Your task to perform on an android device: open chrome privacy settings Image 0: 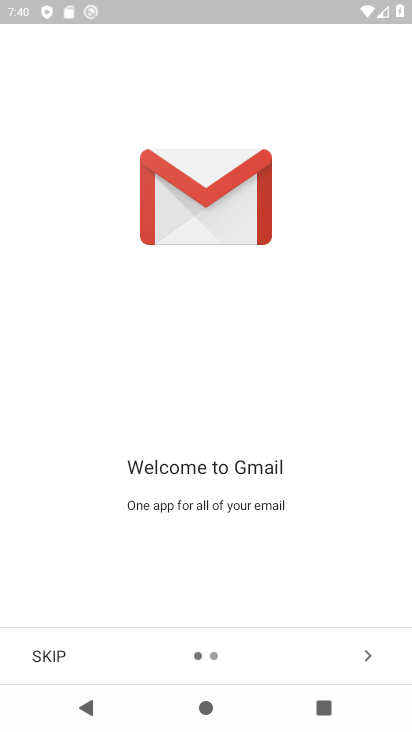
Step 0: press back button
Your task to perform on an android device: open chrome privacy settings Image 1: 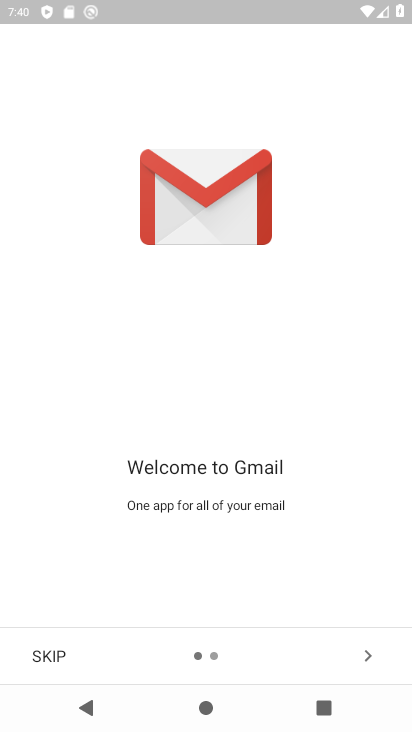
Step 1: press back button
Your task to perform on an android device: open chrome privacy settings Image 2: 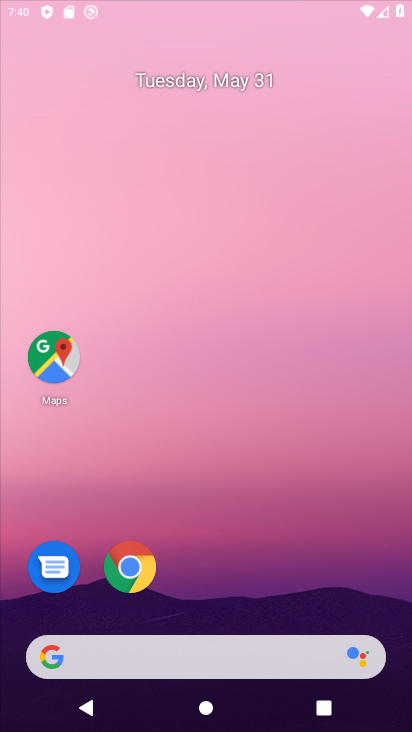
Step 2: press back button
Your task to perform on an android device: open chrome privacy settings Image 3: 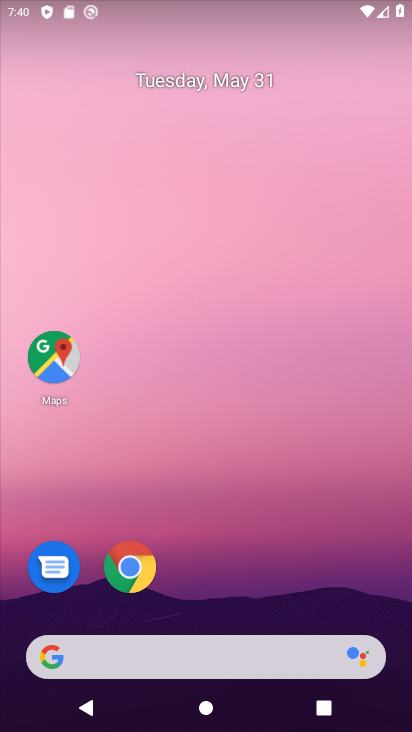
Step 3: press back button
Your task to perform on an android device: open chrome privacy settings Image 4: 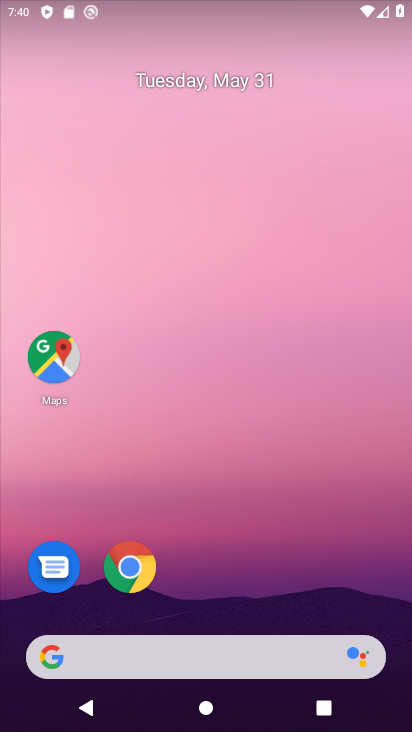
Step 4: press back button
Your task to perform on an android device: open chrome privacy settings Image 5: 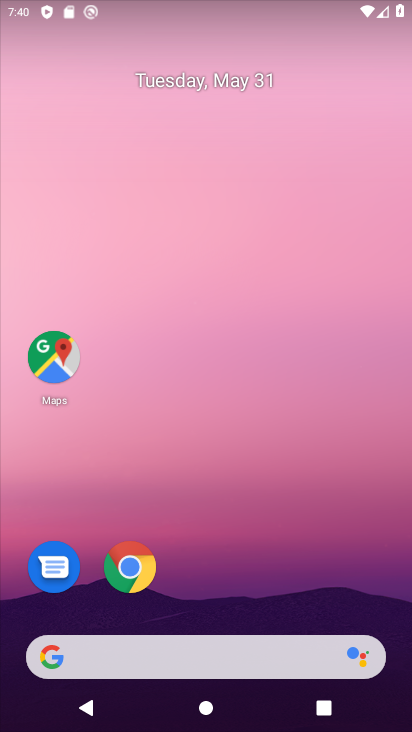
Step 5: drag from (282, 704) to (220, 100)
Your task to perform on an android device: open chrome privacy settings Image 6: 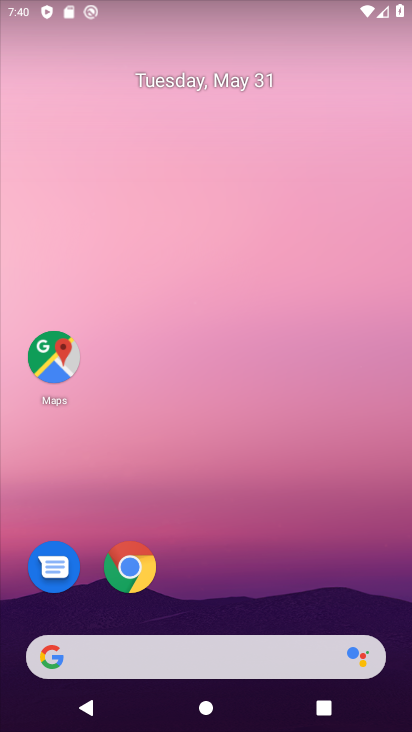
Step 6: drag from (245, 600) to (186, 153)
Your task to perform on an android device: open chrome privacy settings Image 7: 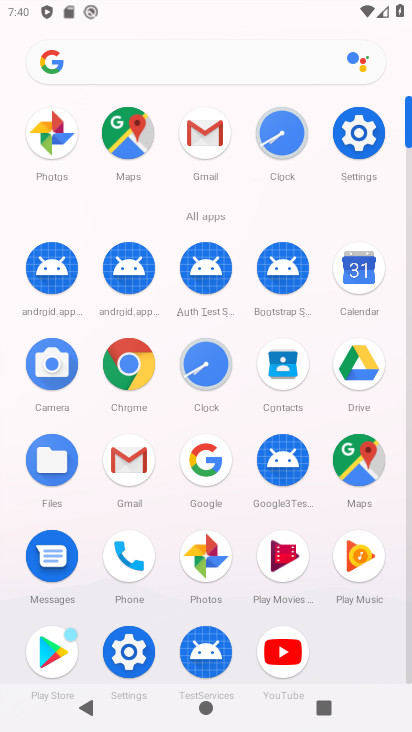
Step 7: click (120, 373)
Your task to perform on an android device: open chrome privacy settings Image 8: 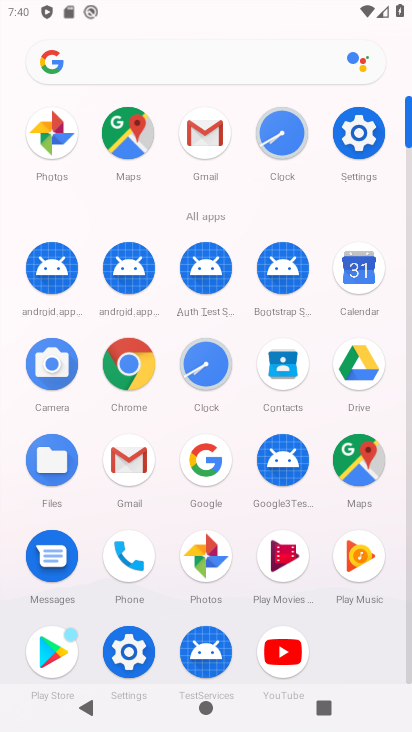
Step 8: click (125, 371)
Your task to perform on an android device: open chrome privacy settings Image 9: 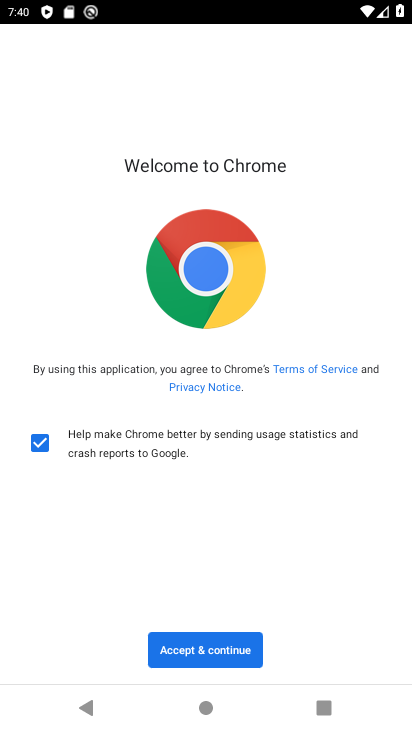
Step 9: click (211, 649)
Your task to perform on an android device: open chrome privacy settings Image 10: 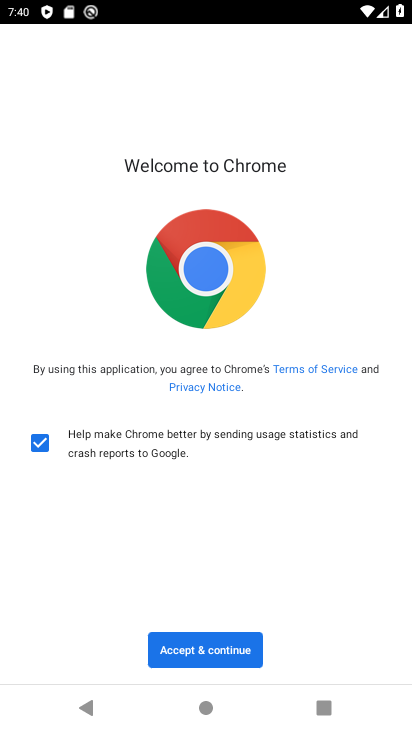
Step 10: click (211, 648)
Your task to perform on an android device: open chrome privacy settings Image 11: 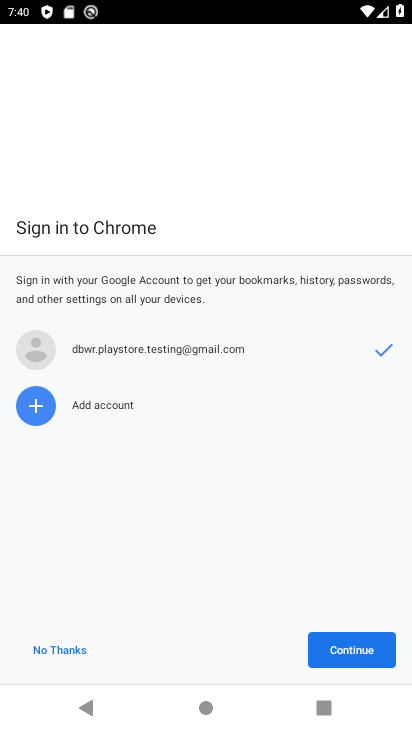
Step 11: click (216, 645)
Your task to perform on an android device: open chrome privacy settings Image 12: 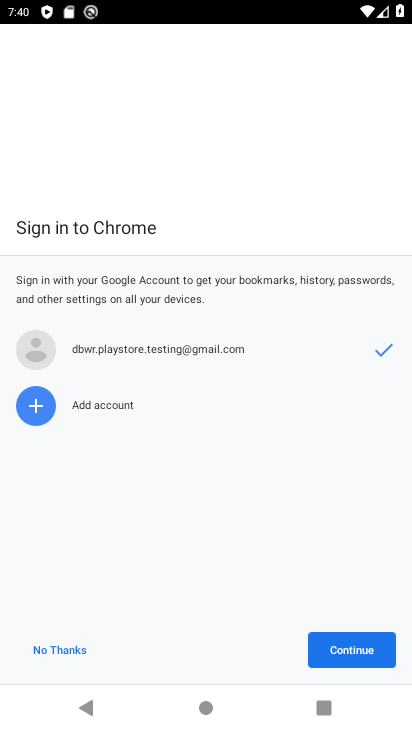
Step 12: click (352, 652)
Your task to perform on an android device: open chrome privacy settings Image 13: 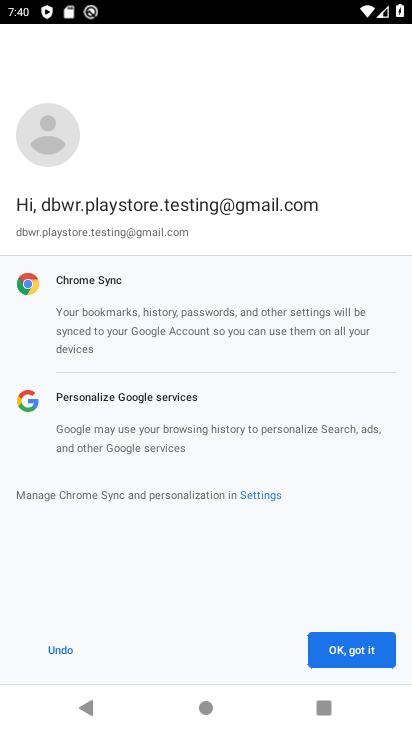
Step 13: click (361, 651)
Your task to perform on an android device: open chrome privacy settings Image 14: 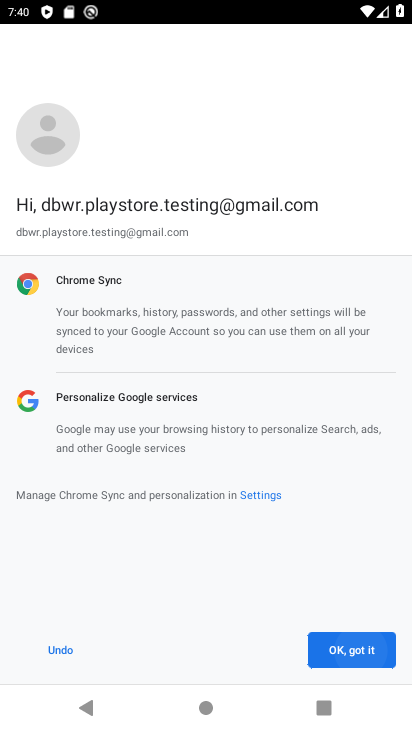
Step 14: click (361, 651)
Your task to perform on an android device: open chrome privacy settings Image 15: 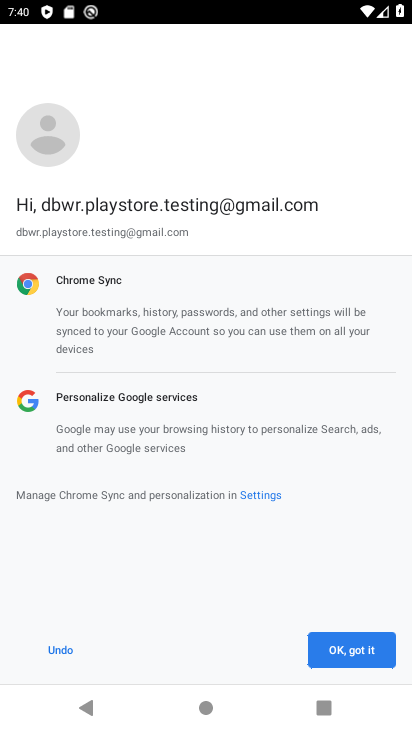
Step 15: click (362, 652)
Your task to perform on an android device: open chrome privacy settings Image 16: 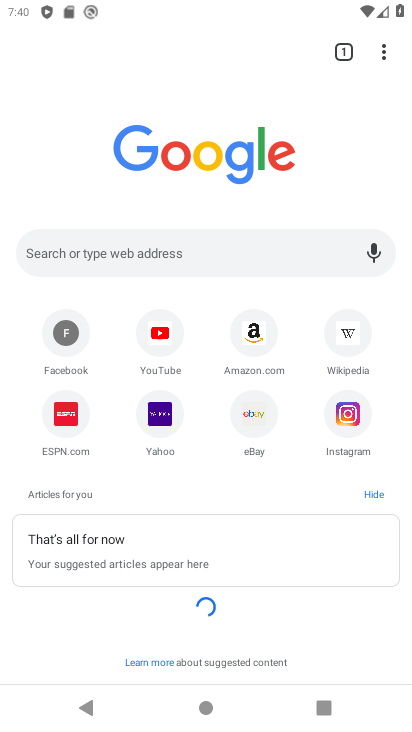
Step 16: drag from (386, 52) to (192, 434)
Your task to perform on an android device: open chrome privacy settings Image 17: 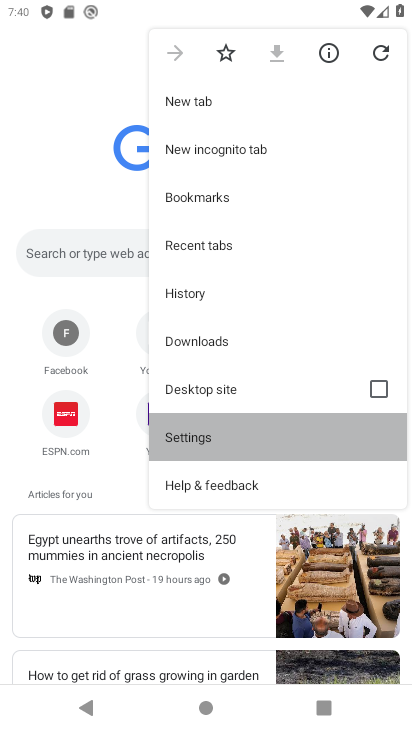
Step 17: click (194, 434)
Your task to perform on an android device: open chrome privacy settings Image 18: 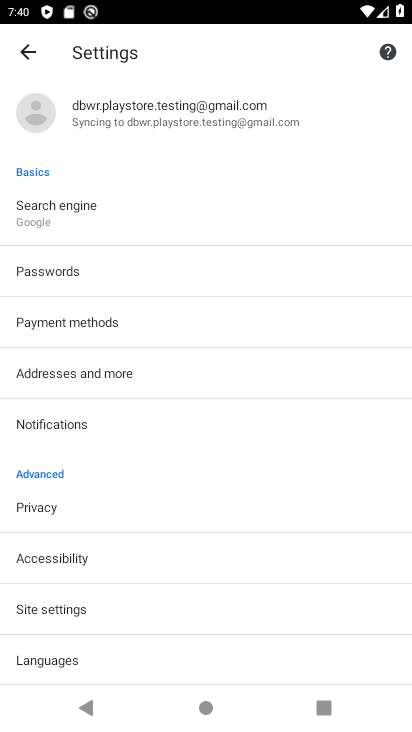
Step 18: click (47, 510)
Your task to perform on an android device: open chrome privacy settings Image 19: 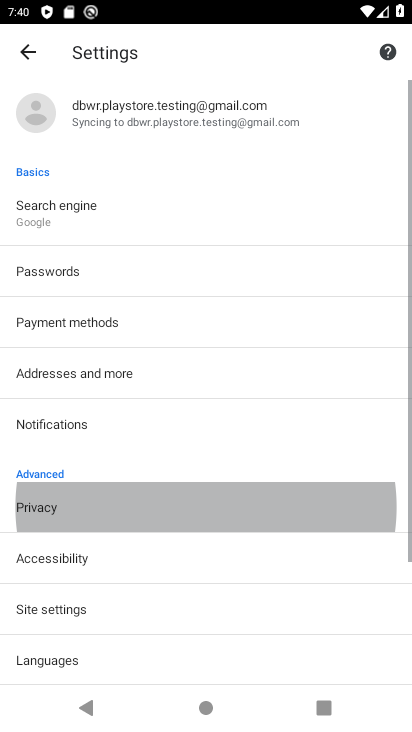
Step 19: click (47, 510)
Your task to perform on an android device: open chrome privacy settings Image 20: 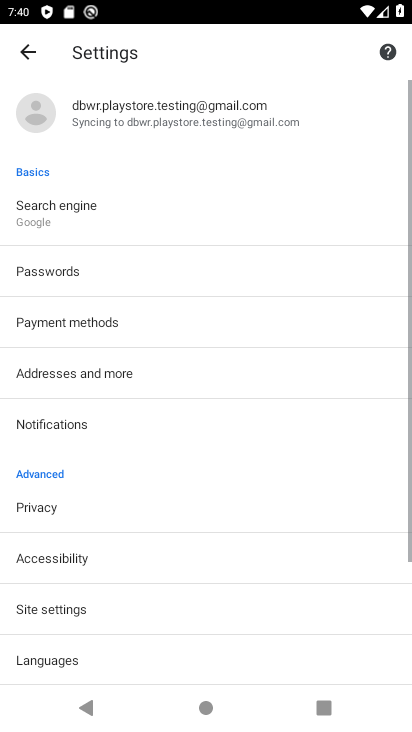
Step 20: click (47, 510)
Your task to perform on an android device: open chrome privacy settings Image 21: 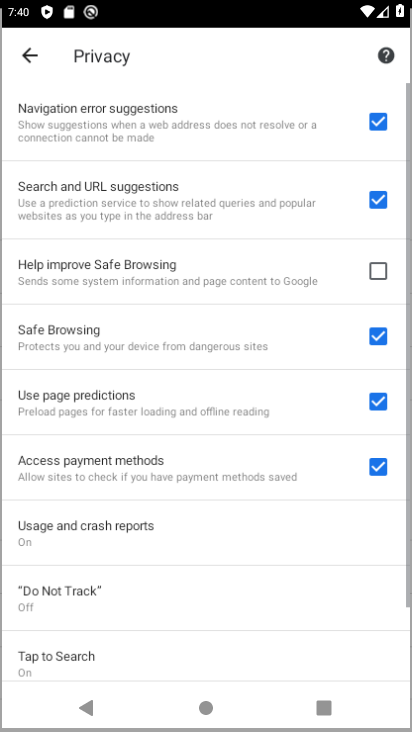
Step 21: click (47, 509)
Your task to perform on an android device: open chrome privacy settings Image 22: 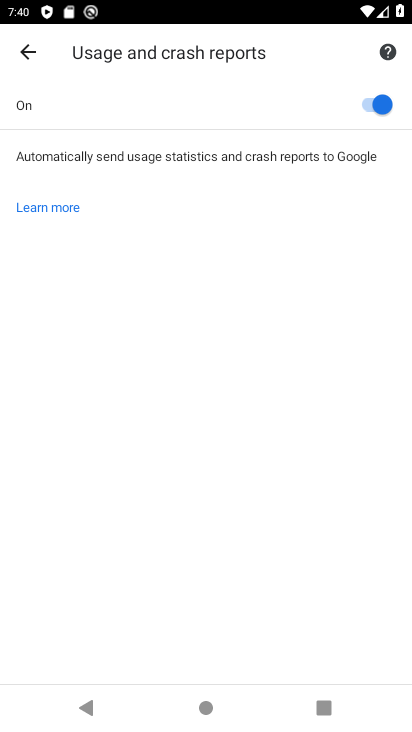
Step 22: task complete